Your task to perform on an android device: Search for Mexican restaurants on Maps Image 0: 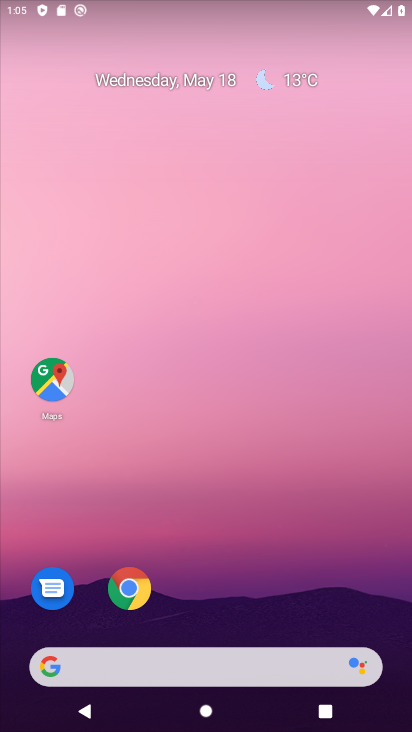
Step 0: drag from (207, 571) to (257, 146)
Your task to perform on an android device: Search for Mexican restaurants on Maps Image 1: 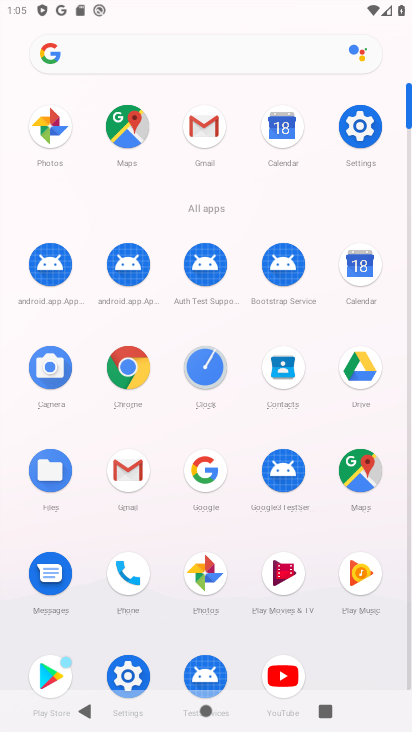
Step 1: click (358, 473)
Your task to perform on an android device: Search for Mexican restaurants on Maps Image 2: 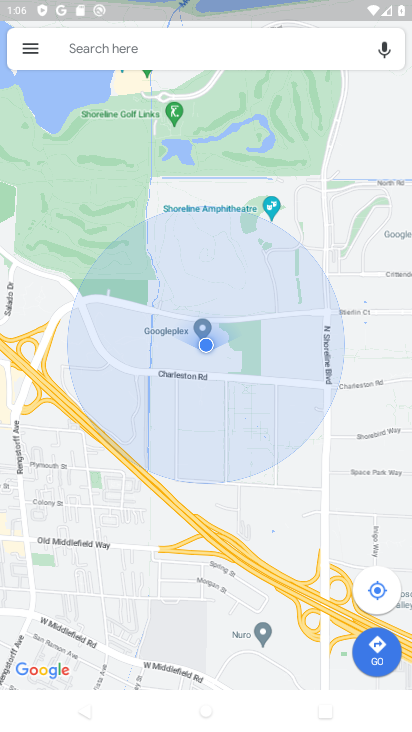
Step 2: click (23, 58)
Your task to perform on an android device: Search for Mexican restaurants on Maps Image 3: 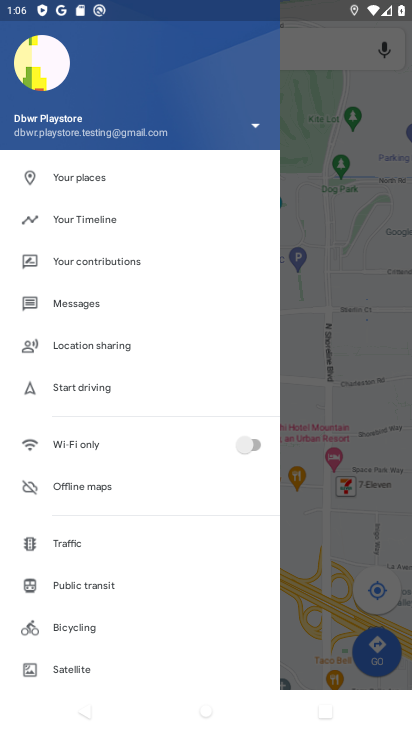
Step 3: press back button
Your task to perform on an android device: Search for Mexican restaurants on Maps Image 4: 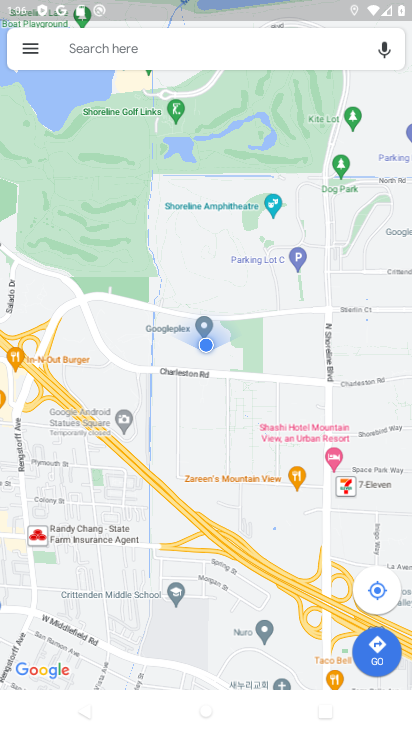
Step 4: click (165, 40)
Your task to perform on an android device: Search for Mexican restaurants on Maps Image 5: 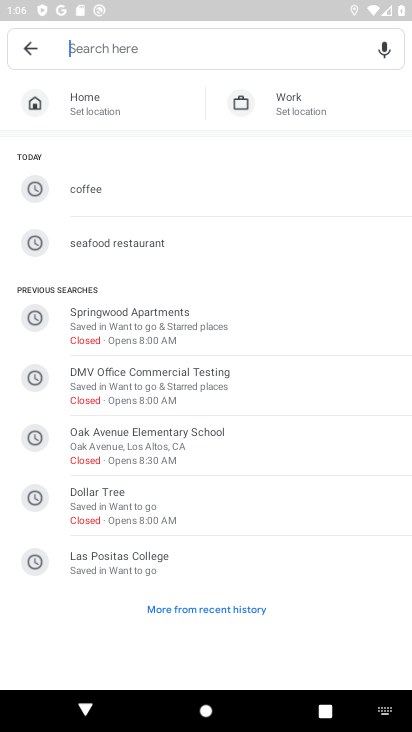
Step 5: click (116, 52)
Your task to perform on an android device: Search for Mexican restaurants on Maps Image 6: 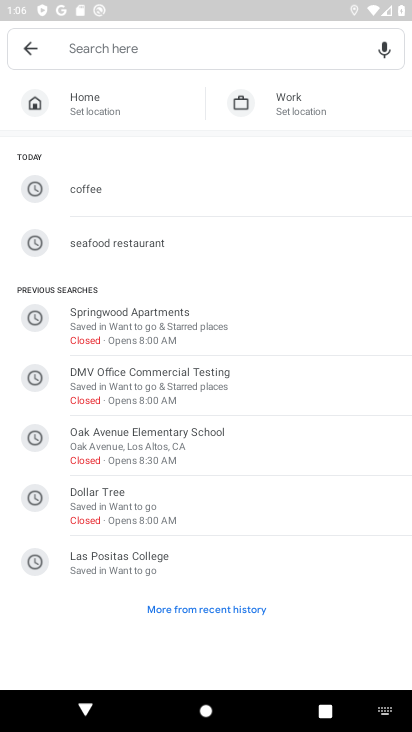
Step 6: type "maxican restaurants"
Your task to perform on an android device: Search for Mexican restaurants on Maps Image 7: 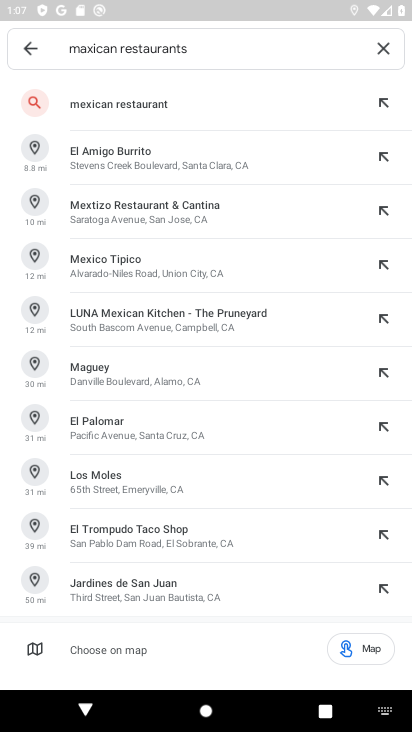
Step 7: click (111, 99)
Your task to perform on an android device: Search for Mexican restaurants on Maps Image 8: 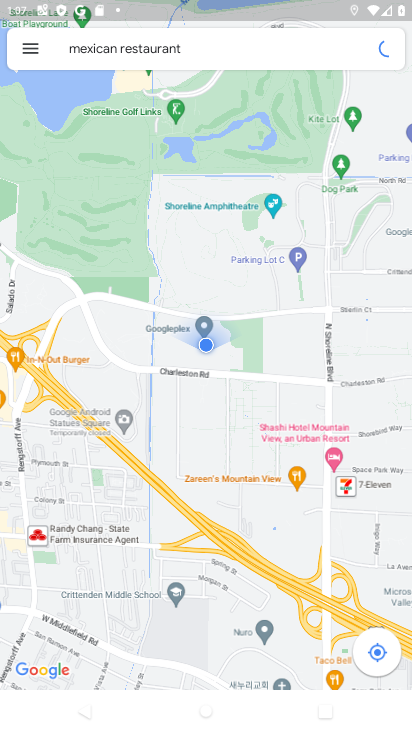
Step 8: task complete